Your task to perform on an android device: Show me productivity apps on the Play Store Image 0: 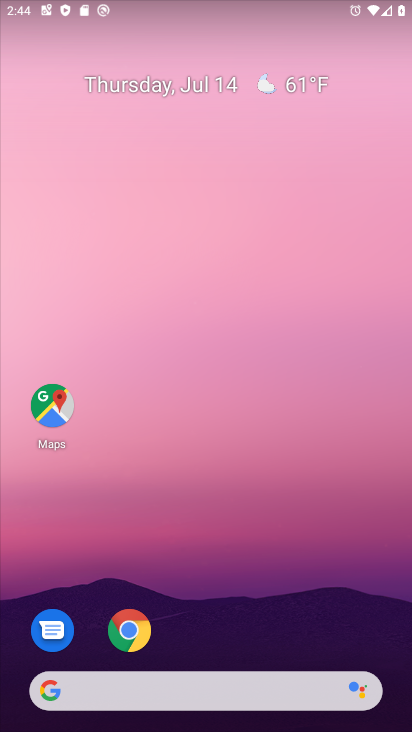
Step 0: press home button
Your task to perform on an android device: Show me productivity apps on the Play Store Image 1: 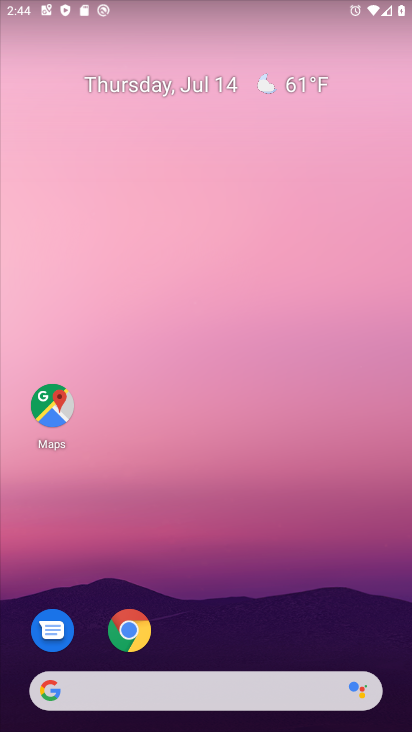
Step 1: drag from (119, 657) to (252, 197)
Your task to perform on an android device: Show me productivity apps on the Play Store Image 2: 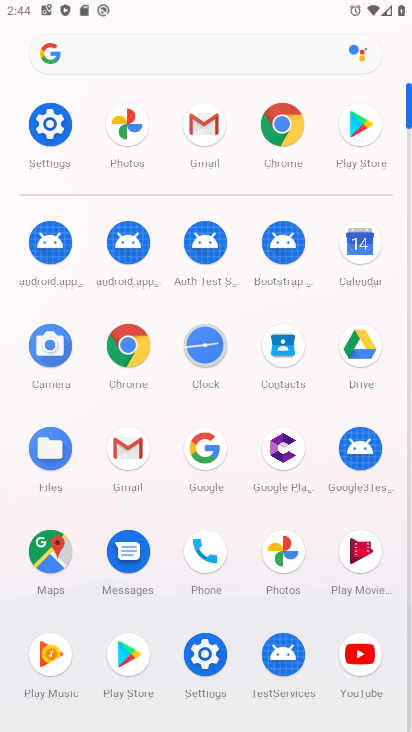
Step 2: click (126, 641)
Your task to perform on an android device: Show me productivity apps on the Play Store Image 3: 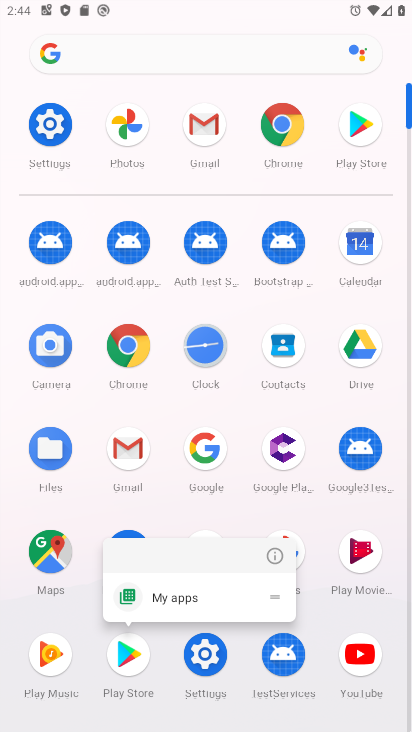
Step 3: click (130, 659)
Your task to perform on an android device: Show me productivity apps on the Play Store Image 4: 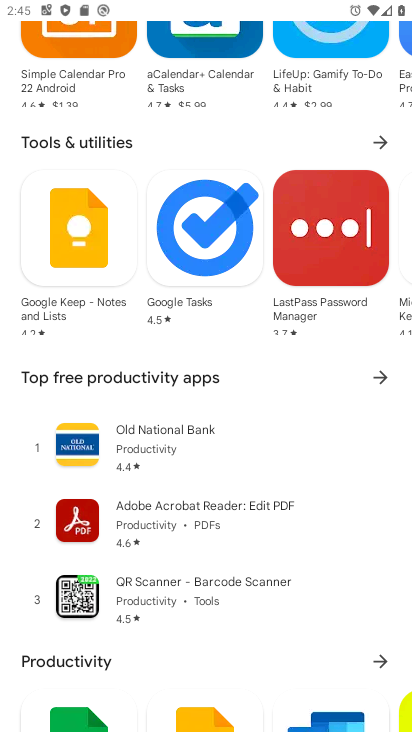
Step 4: task complete